Your task to perform on an android device: clear history in the chrome app Image 0: 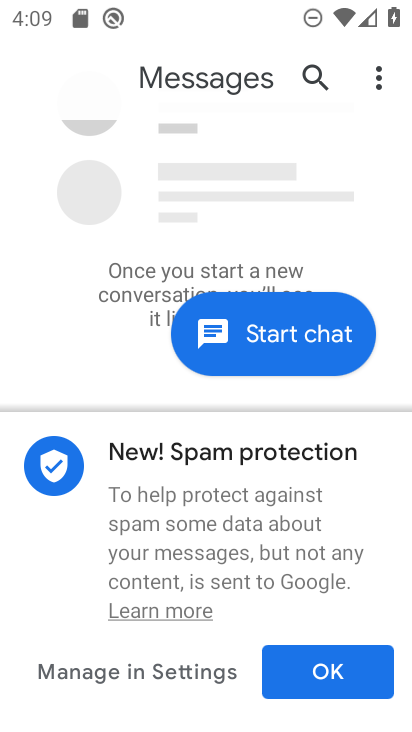
Step 0: press home button
Your task to perform on an android device: clear history in the chrome app Image 1: 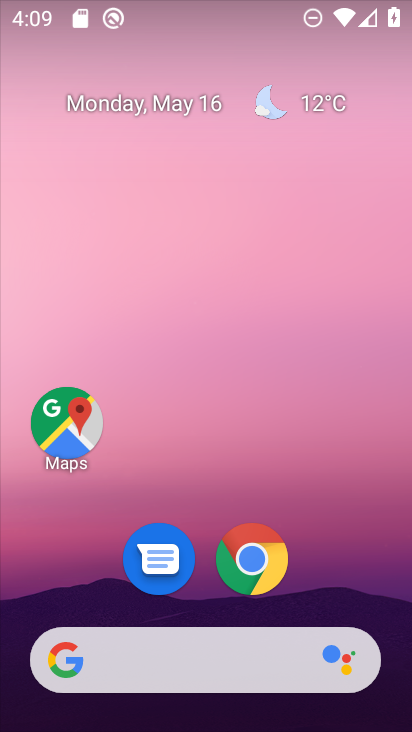
Step 1: drag from (339, 581) to (287, 163)
Your task to perform on an android device: clear history in the chrome app Image 2: 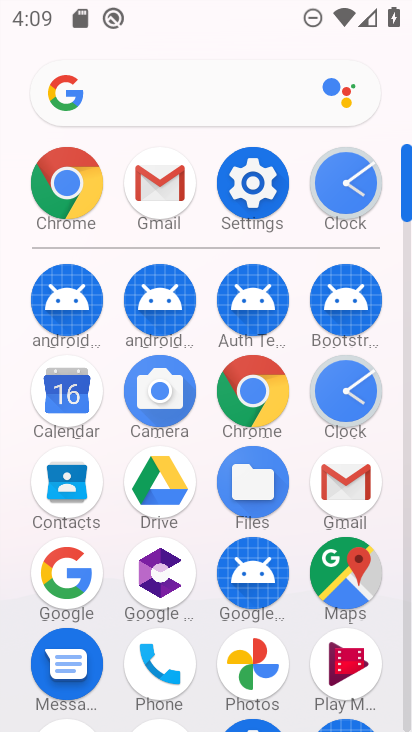
Step 2: click (253, 411)
Your task to perform on an android device: clear history in the chrome app Image 3: 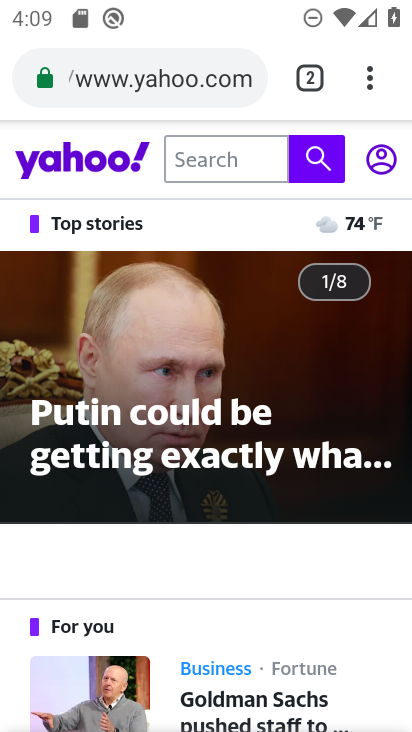
Step 3: click (376, 85)
Your task to perform on an android device: clear history in the chrome app Image 4: 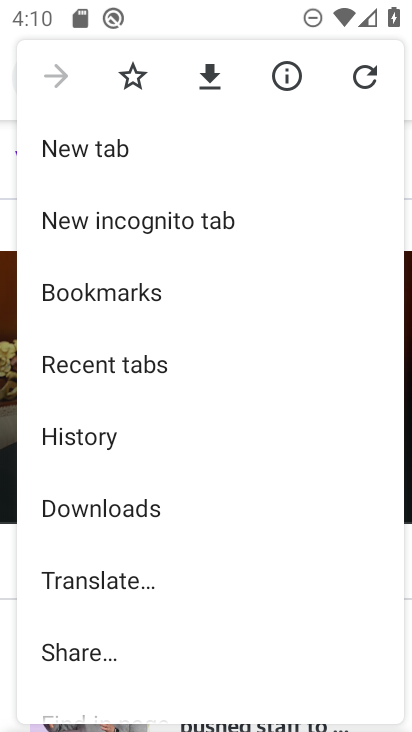
Step 4: click (193, 433)
Your task to perform on an android device: clear history in the chrome app Image 5: 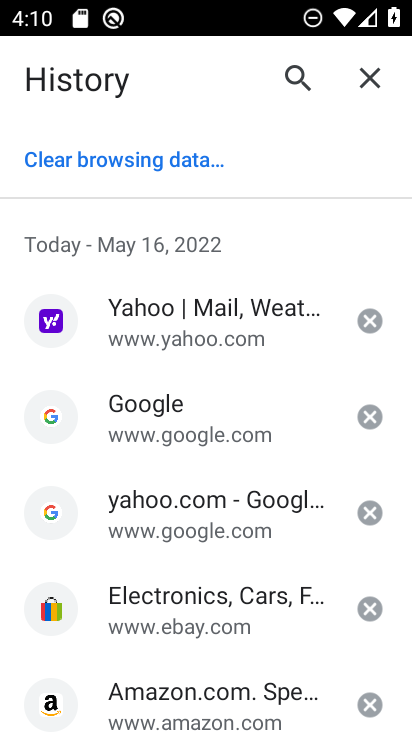
Step 5: click (193, 172)
Your task to perform on an android device: clear history in the chrome app Image 6: 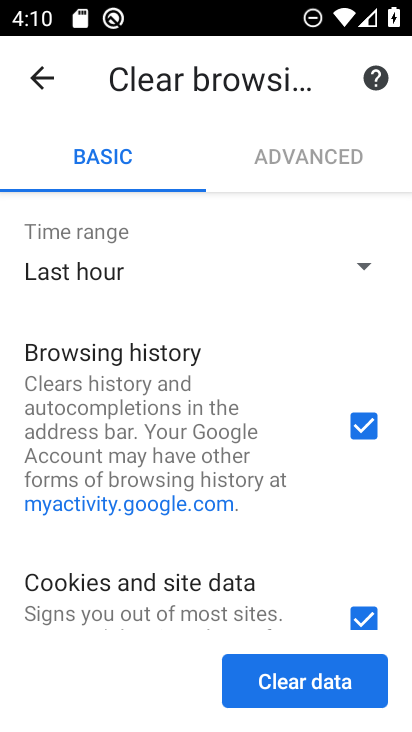
Step 6: click (348, 595)
Your task to perform on an android device: clear history in the chrome app Image 7: 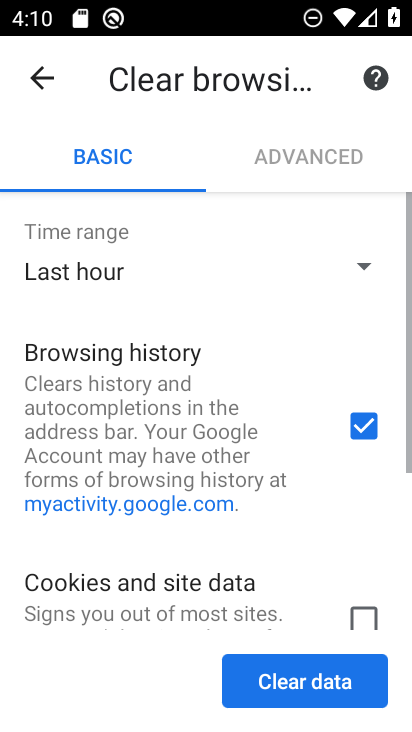
Step 7: drag from (331, 487) to (305, 219)
Your task to perform on an android device: clear history in the chrome app Image 8: 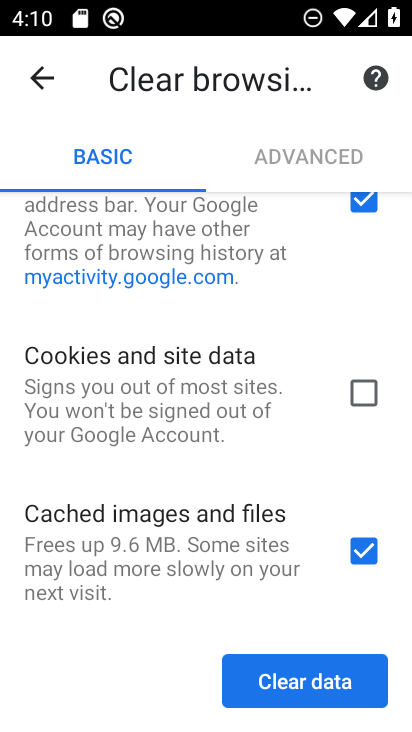
Step 8: click (347, 559)
Your task to perform on an android device: clear history in the chrome app Image 9: 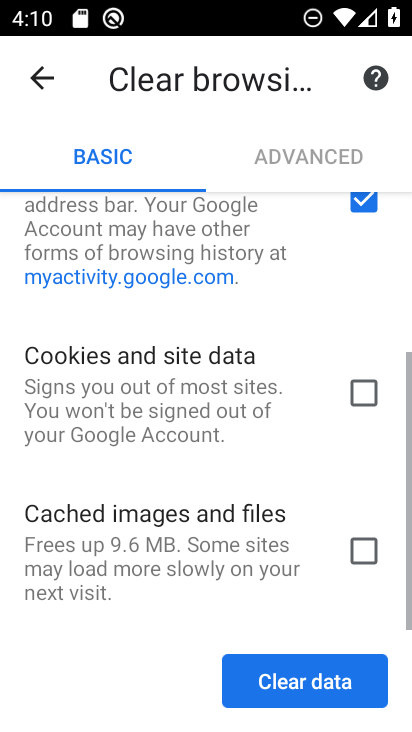
Step 9: click (356, 703)
Your task to perform on an android device: clear history in the chrome app Image 10: 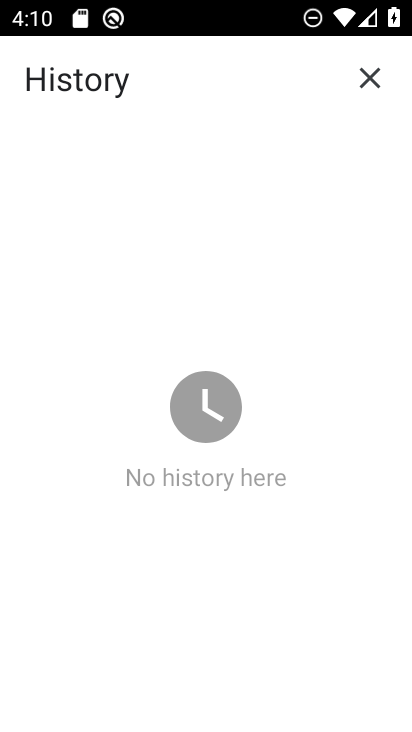
Step 10: task complete